Your task to perform on an android device: turn pop-ups on in chrome Image 0: 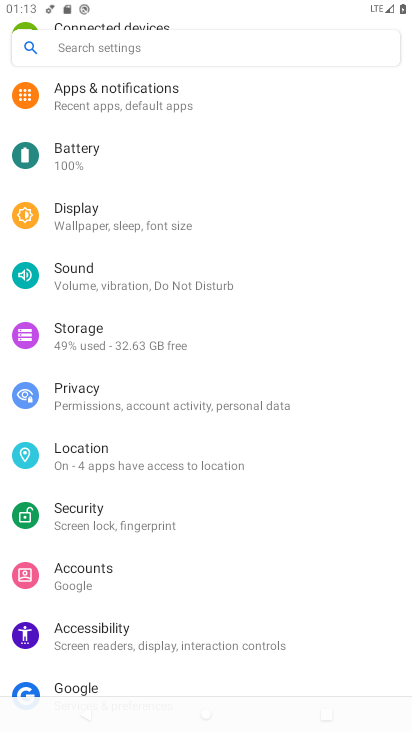
Step 0: press home button
Your task to perform on an android device: turn pop-ups on in chrome Image 1: 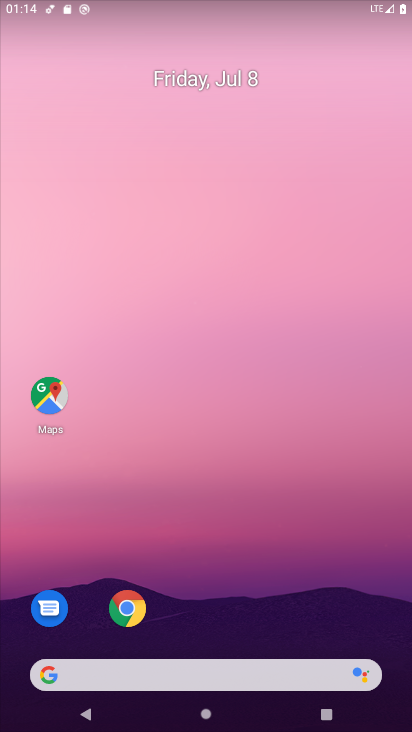
Step 1: drag from (267, 633) to (298, 81)
Your task to perform on an android device: turn pop-ups on in chrome Image 2: 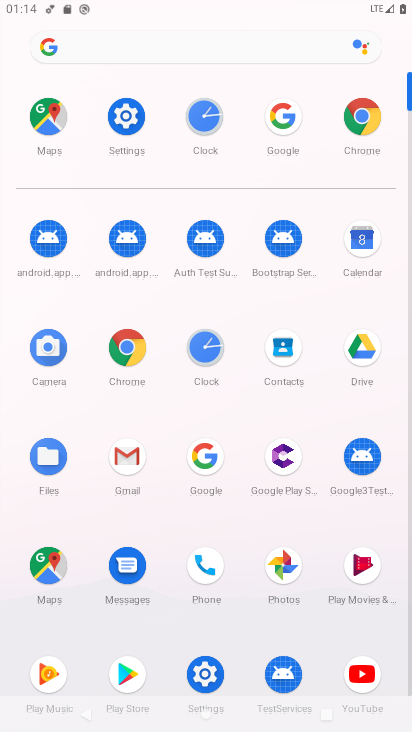
Step 2: click (350, 105)
Your task to perform on an android device: turn pop-ups on in chrome Image 3: 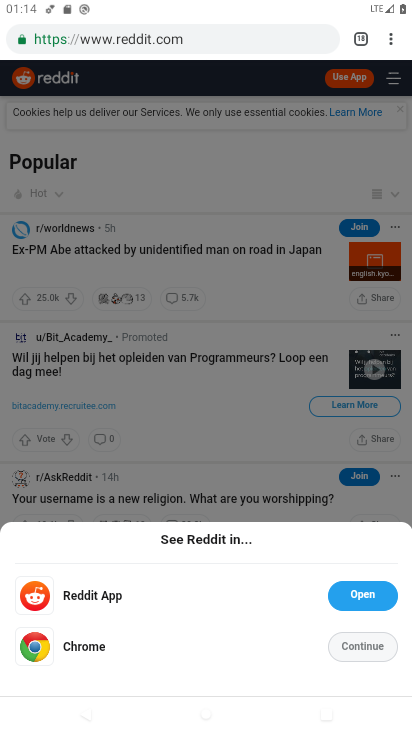
Step 3: click (399, 29)
Your task to perform on an android device: turn pop-ups on in chrome Image 4: 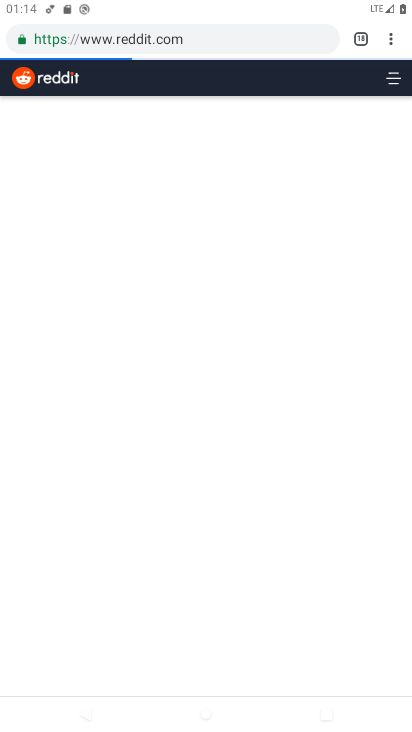
Step 4: click (399, 31)
Your task to perform on an android device: turn pop-ups on in chrome Image 5: 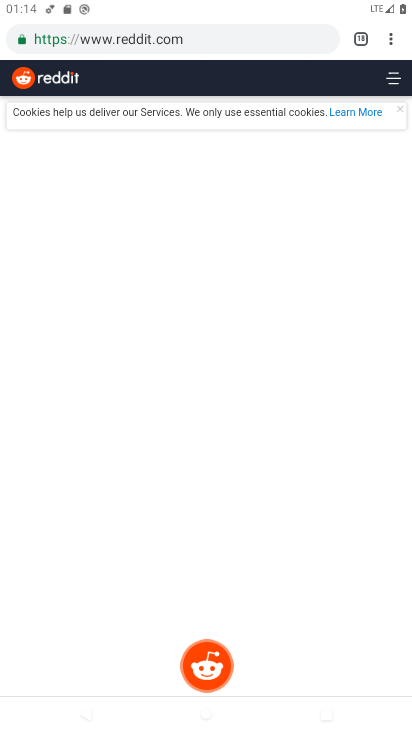
Step 5: click (384, 38)
Your task to perform on an android device: turn pop-ups on in chrome Image 6: 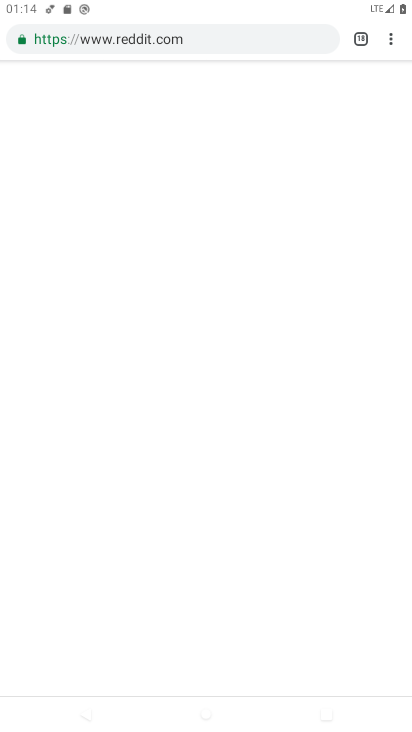
Step 6: click (386, 38)
Your task to perform on an android device: turn pop-ups on in chrome Image 7: 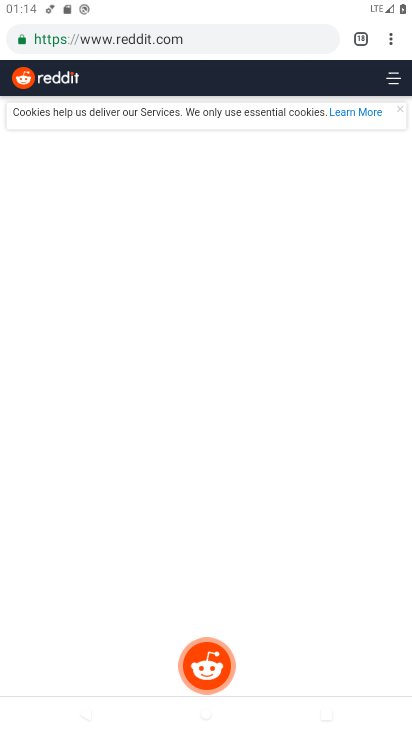
Step 7: click (386, 38)
Your task to perform on an android device: turn pop-ups on in chrome Image 8: 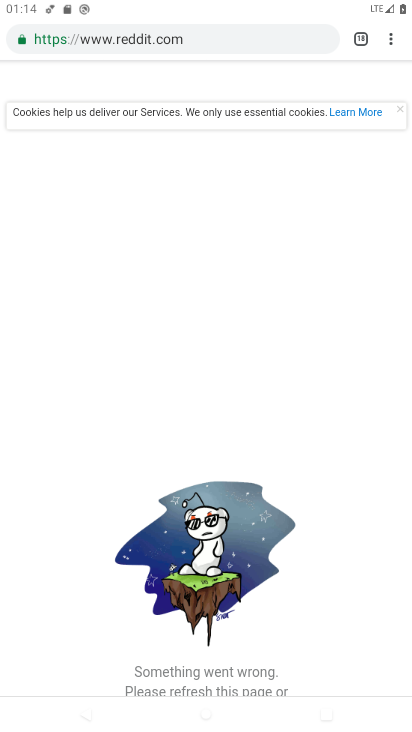
Step 8: click (382, 37)
Your task to perform on an android device: turn pop-ups on in chrome Image 9: 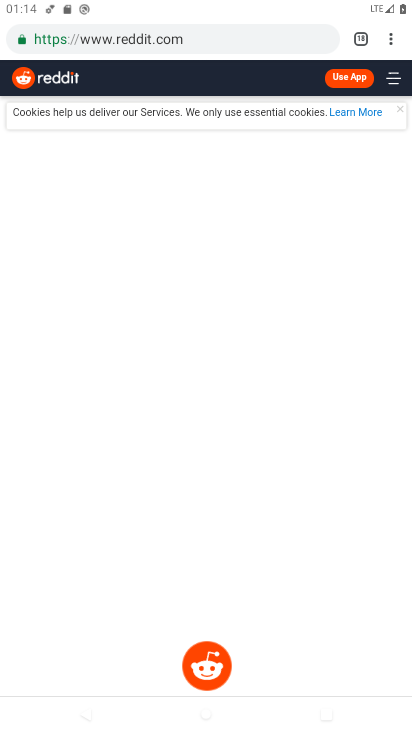
Step 9: click (384, 30)
Your task to perform on an android device: turn pop-ups on in chrome Image 10: 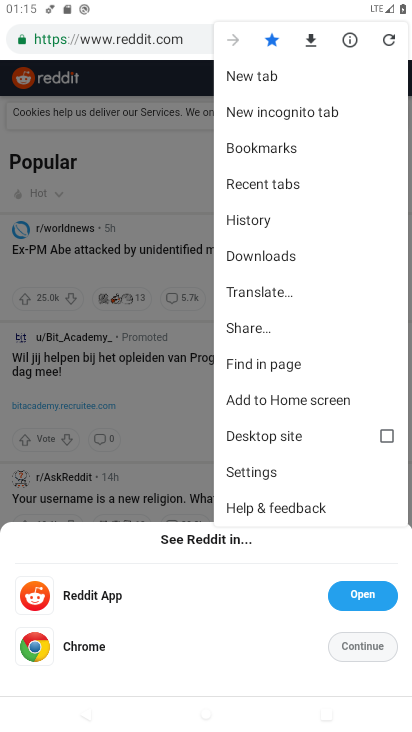
Step 10: click (245, 465)
Your task to perform on an android device: turn pop-ups on in chrome Image 11: 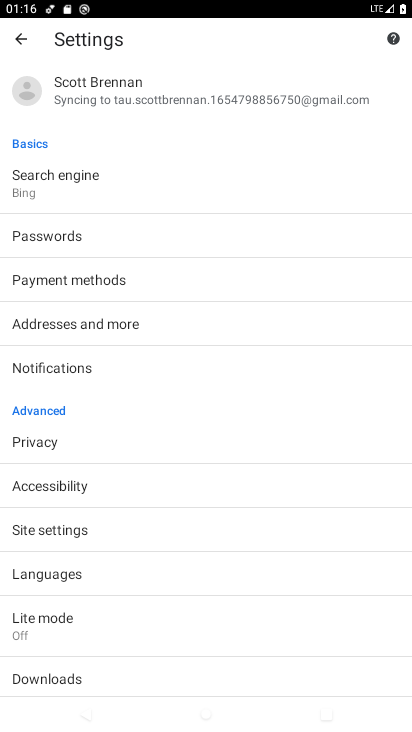
Step 11: click (95, 532)
Your task to perform on an android device: turn pop-ups on in chrome Image 12: 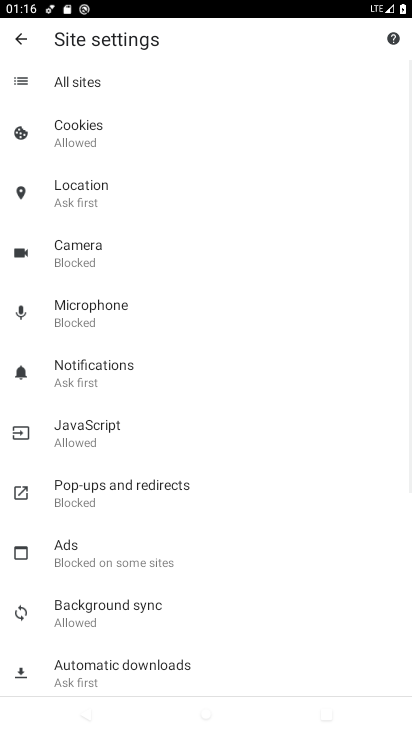
Step 12: click (160, 508)
Your task to perform on an android device: turn pop-ups on in chrome Image 13: 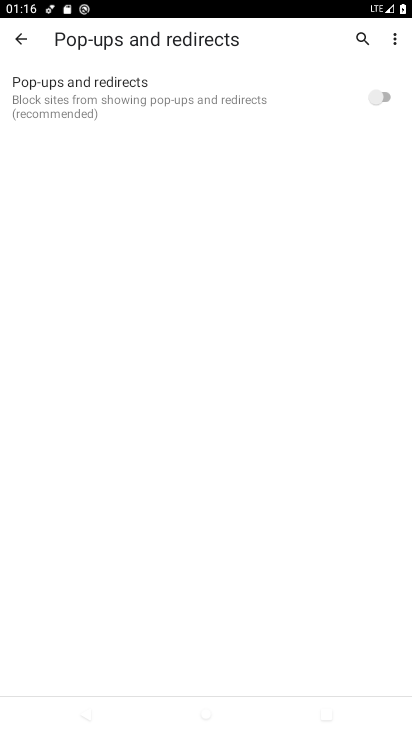
Step 13: click (386, 102)
Your task to perform on an android device: turn pop-ups on in chrome Image 14: 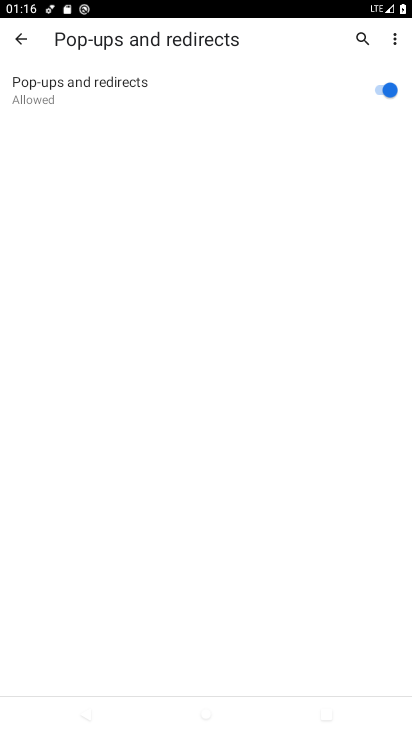
Step 14: task complete